Your task to perform on an android device: Open the calendar and show me this week's events? Image 0: 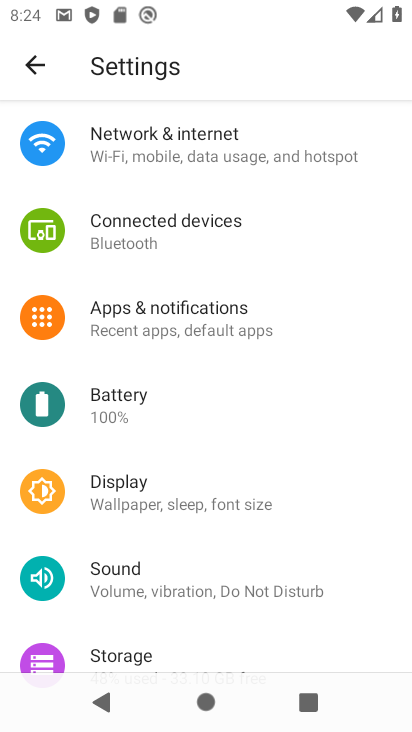
Step 0: press home button
Your task to perform on an android device: Open the calendar and show me this week's events? Image 1: 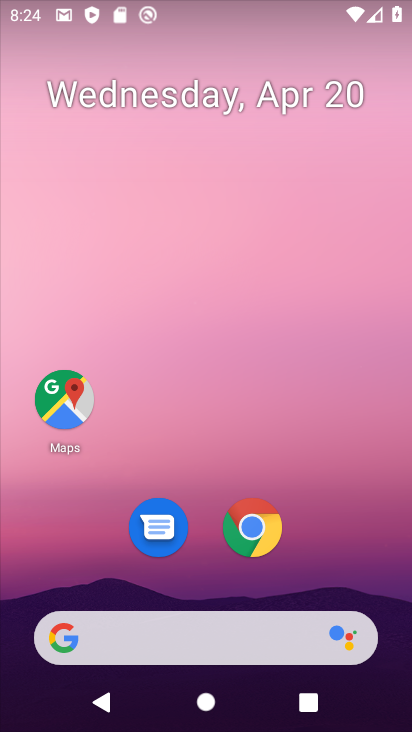
Step 1: drag from (359, 581) to (302, 45)
Your task to perform on an android device: Open the calendar and show me this week's events? Image 2: 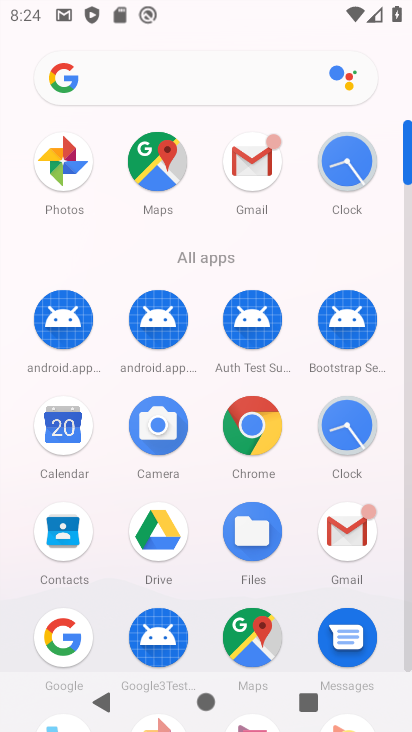
Step 2: click (54, 437)
Your task to perform on an android device: Open the calendar and show me this week's events? Image 3: 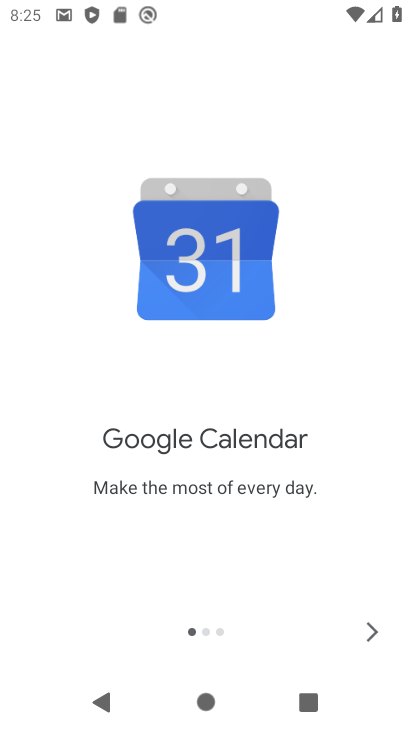
Step 3: click (363, 636)
Your task to perform on an android device: Open the calendar and show me this week's events? Image 4: 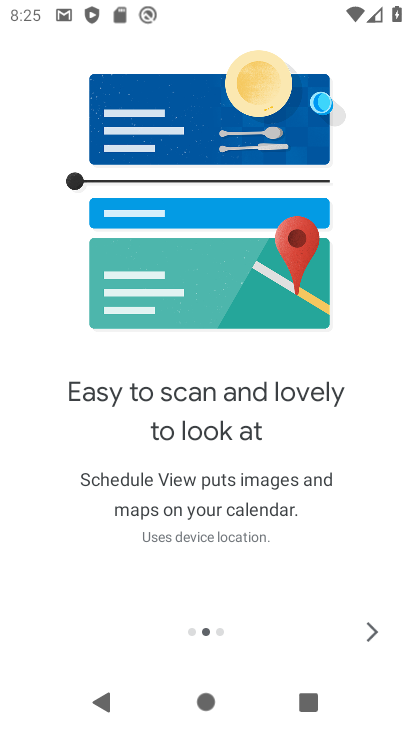
Step 4: click (364, 633)
Your task to perform on an android device: Open the calendar and show me this week's events? Image 5: 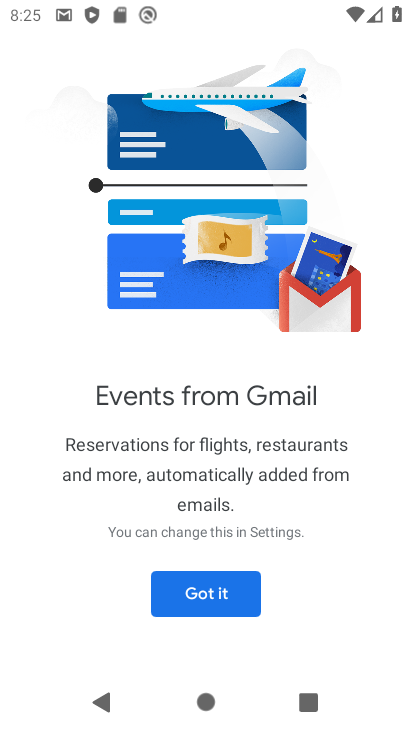
Step 5: click (178, 620)
Your task to perform on an android device: Open the calendar and show me this week's events? Image 6: 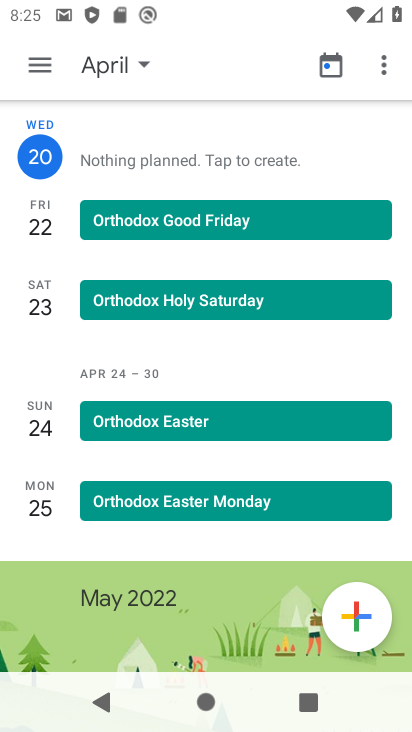
Step 6: click (143, 63)
Your task to perform on an android device: Open the calendar and show me this week's events? Image 7: 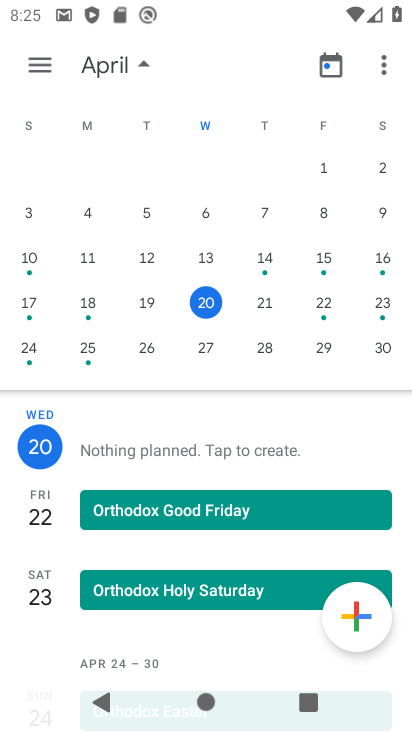
Step 7: click (216, 340)
Your task to perform on an android device: Open the calendar and show me this week's events? Image 8: 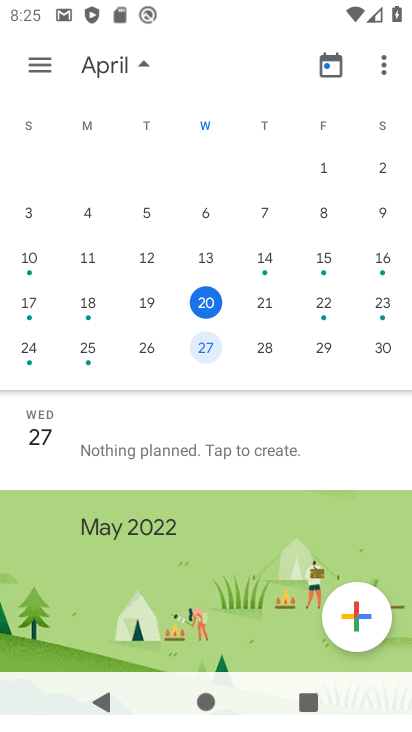
Step 8: task complete